Your task to perform on an android device: change the clock display to analog Image 0: 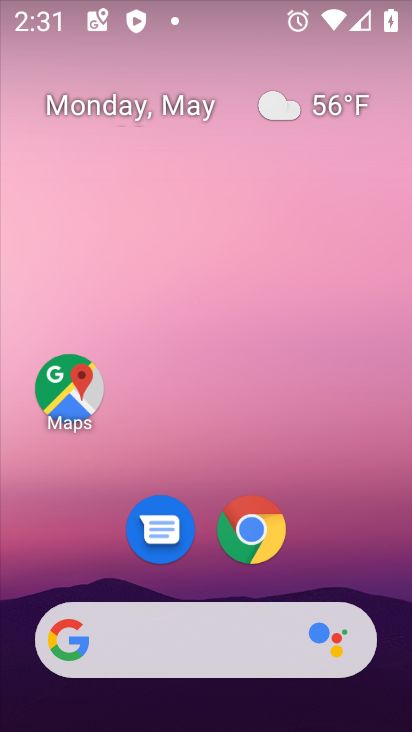
Step 0: drag from (333, 574) to (294, 19)
Your task to perform on an android device: change the clock display to analog Image 1: 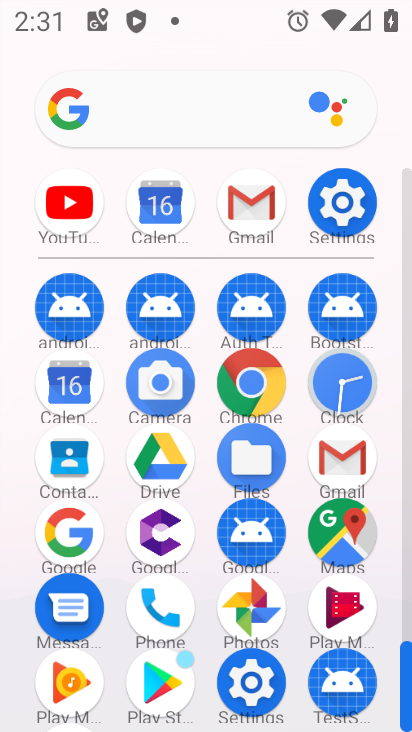
Step 1: click (331, 378)
Your task to perform on an android device: change the clock display to analog Image 2: 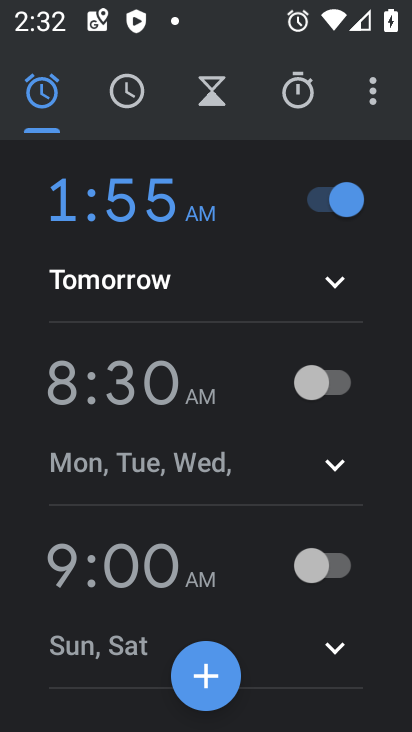
Step 2: click (360, 87)
Your task to perform on an android device: change the clock display to analog Image 3: 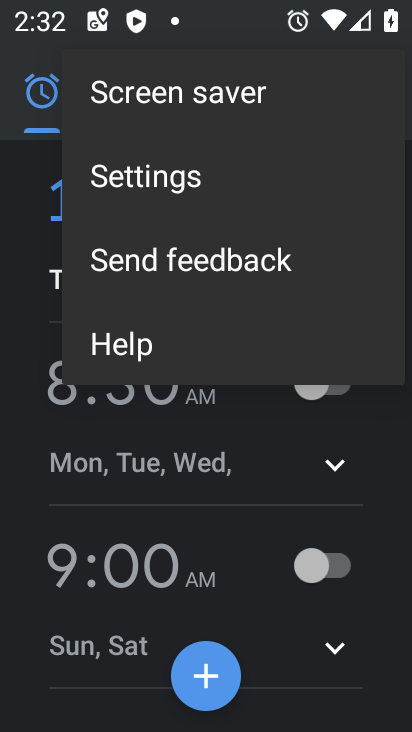
Step 3: click (186, 186)
Your task to perform on an android device: change the clock display to analog Image 4: 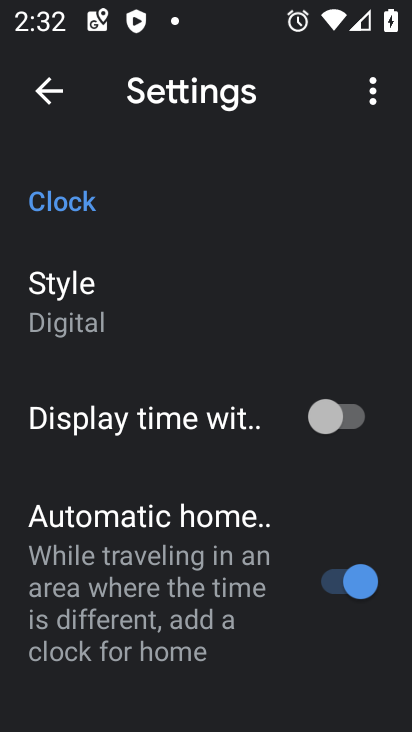
Step 4: click (112, 311)
Your task to perform on an android device: change the clock display to analog Image 5: 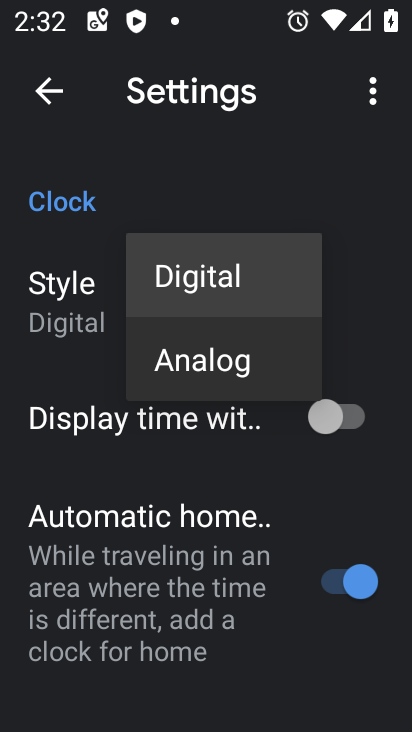
Step 5: click (200, 356)
Your task to perform on an android device: change the clock display to analog Image 6: 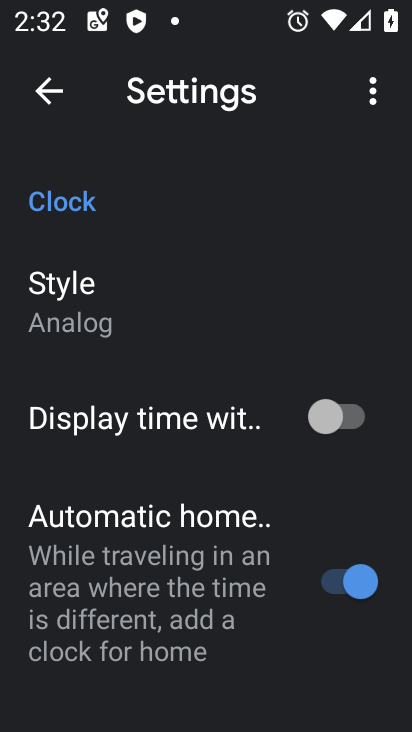
Step 6: task complete